Your task to perform on an android device: turn off javascript in the chrome app Image 0: 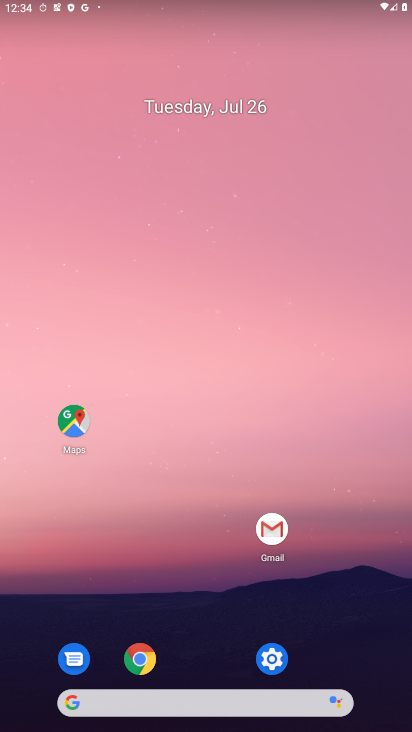
Step 0: click (145, 653)
Your task to perform on an android device: turn off javascript in the chrome app Image 1: 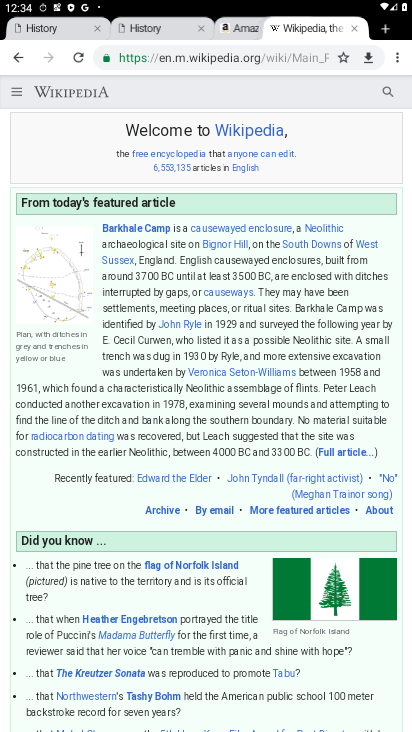
Step 1: click (397, 63)
Your task to perform on an android device: turn off javascript in the chrome app Image 2: 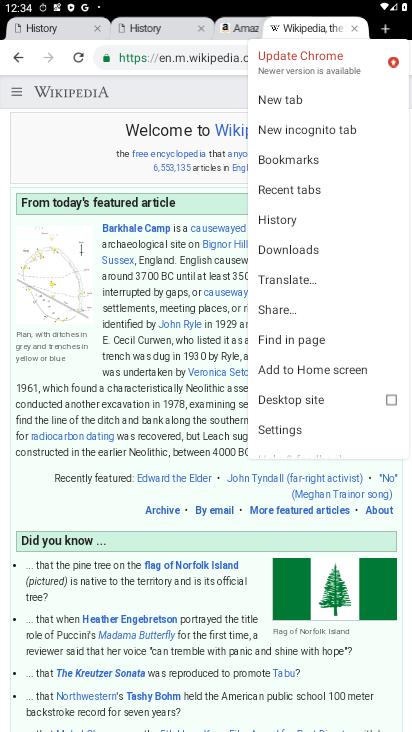
Step 2: click (290, 423)
Your task to perform on an android device: turn off javascript in the chrome app Image 3: 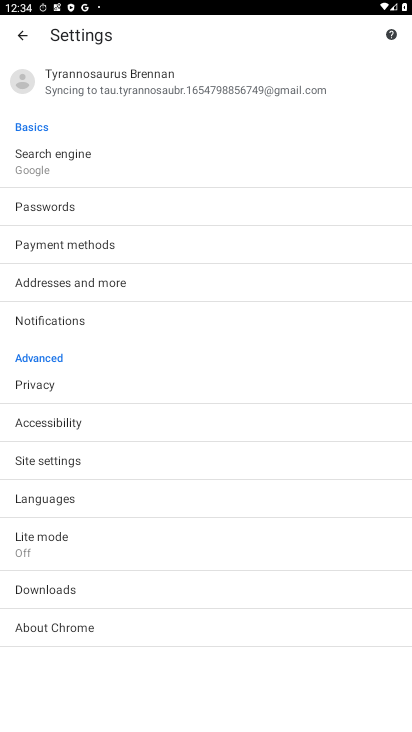
Step 3: click (55, 463)
Your task to perform on an android device: turn off javascript in the chrome app Image 4: 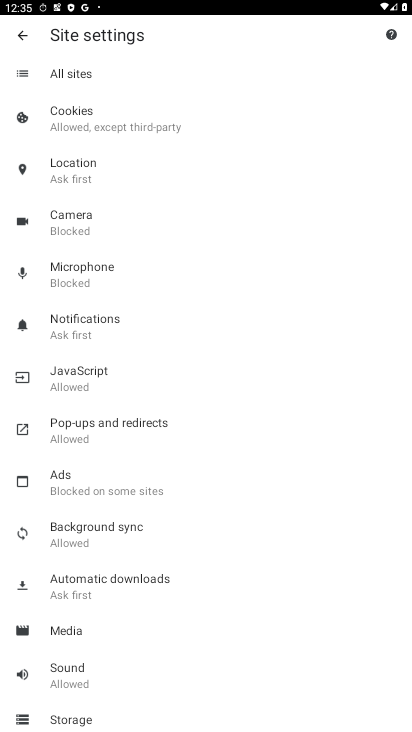
Step 4: click (83, 384)
Your task to perform on an android device: turn off javascript in the chrome app Image 5: 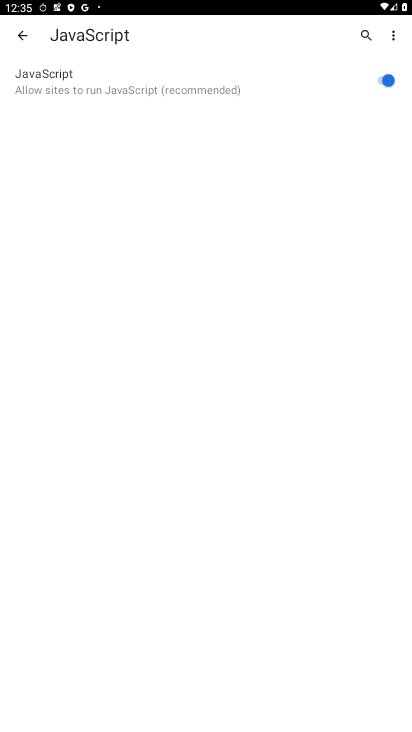
Step 5: click (386, 75)
Your task to perform on an android device: turn off javascript in the chrome app Image 6: 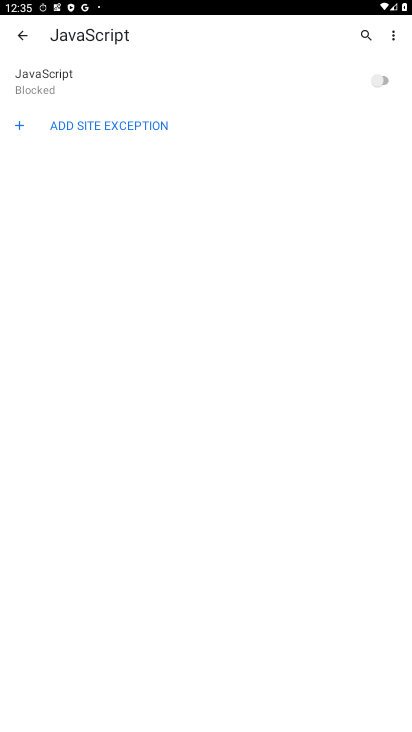
Step 6: task complete